Your task to perform on an android device: change the upload size in google photos Image 0: 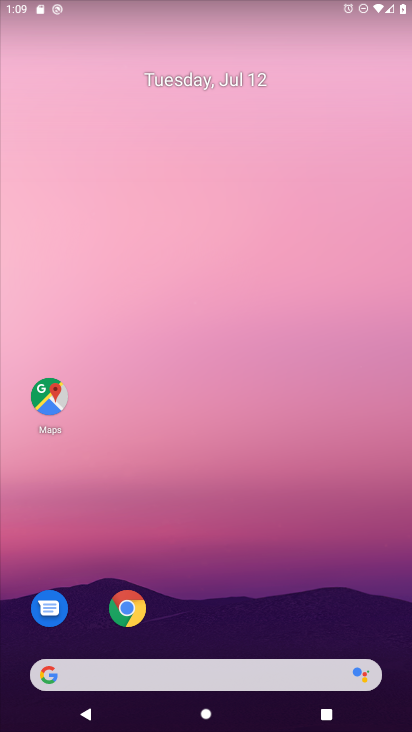
Step 0: drag from (192, 593) to (134, 365)
Your task to perform on an android device: change the upload size in google photos Image 1: 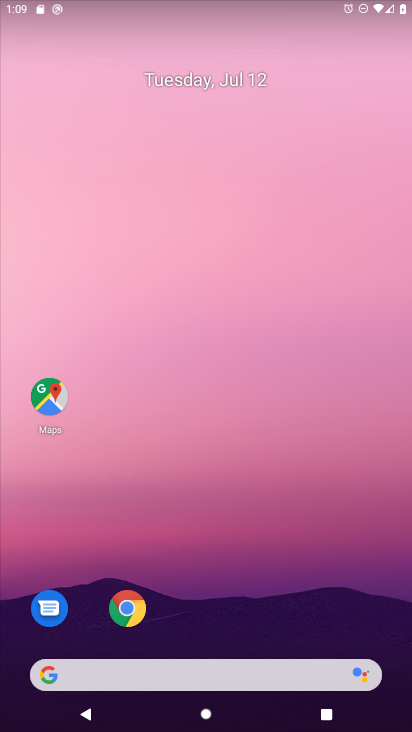
Step 1: drag from (240, 668) to (182, 196)
Your task to perform on an android device: change the upload size in google photos Image 2: 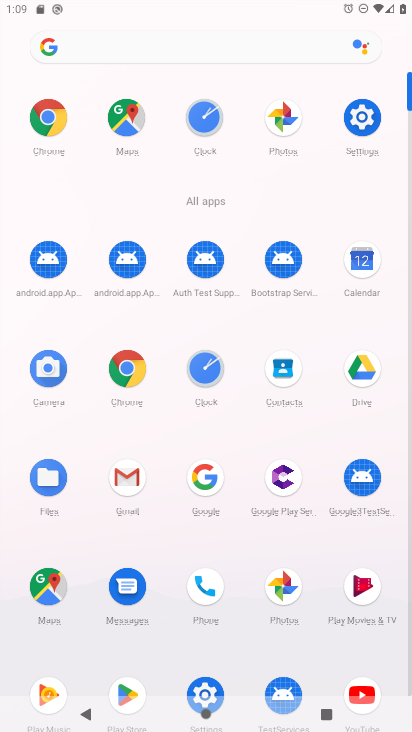
Step 2: click (285, 583)
Your task to perform on an android device: change the upload size in google photos Image 3: 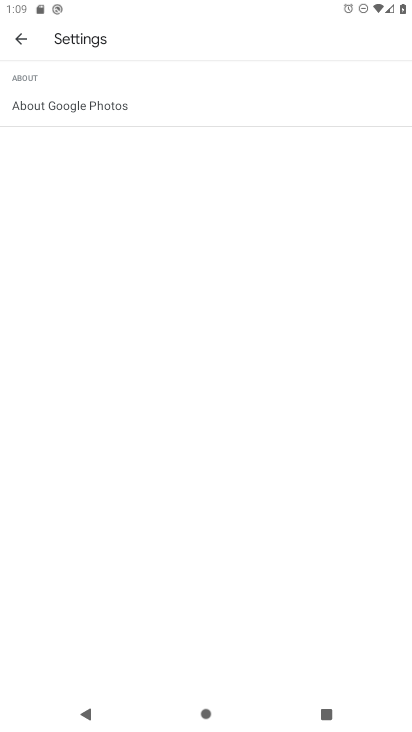
Step 3: click (18, 29)
Your task to perform on an android device: change the upload size in google photos Image 4: 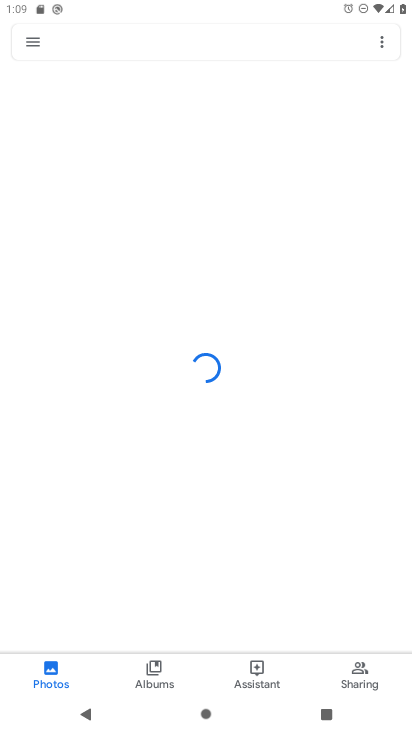
Step 4: click (27, 40)
Your task to perform on an android device: change the upload size in google photos Image 5: 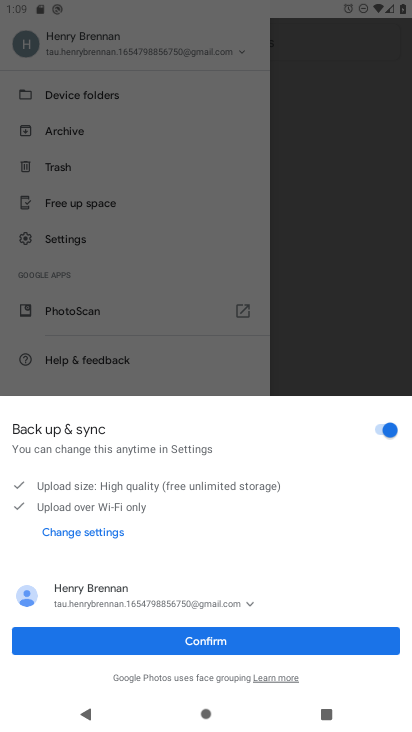
Step 5: click (200, 640)
Your task to perform on an android device: change the upload size in google photos Image 6: 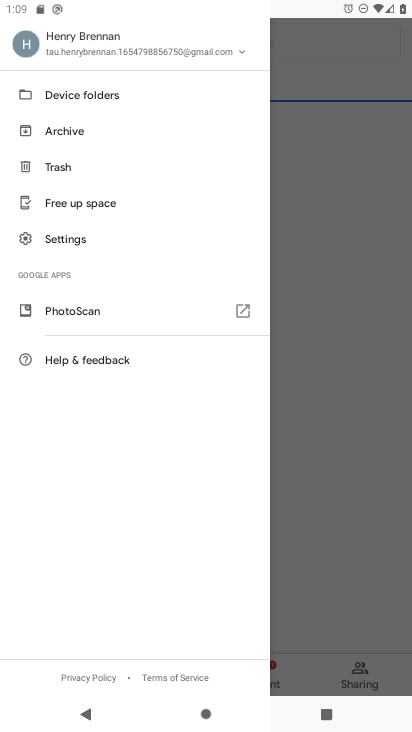
Step 6: click (48, 234)
Your task to perform on an android device: change the upload size in google photos Image 7: 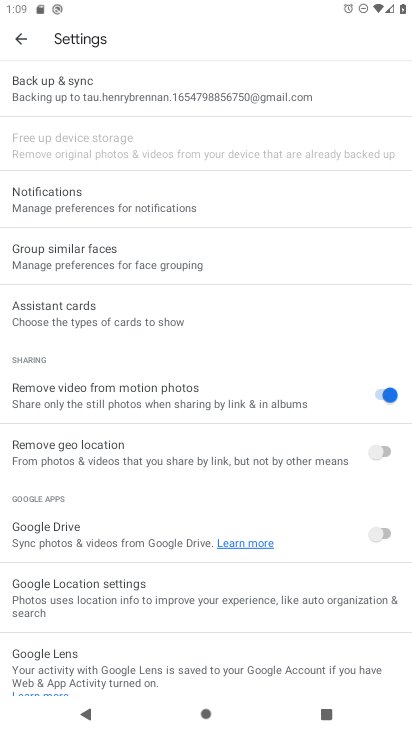
Step 7: click (36, 93)
Your task to perform on an android device: change the upload size in google photos Image 8: 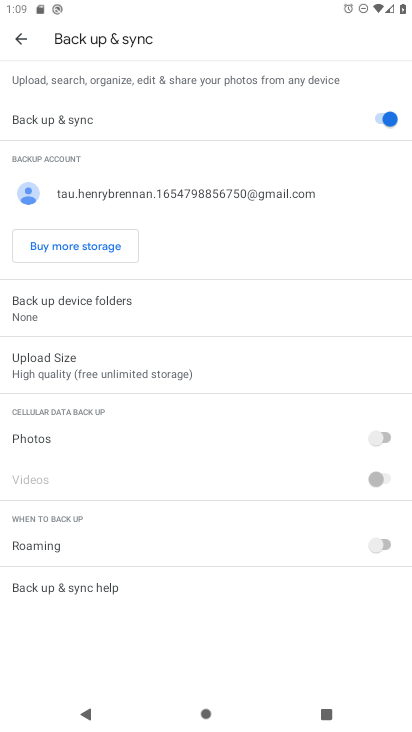
Step 8: click (48, 378)
Your task to perform on an android device: change the upload size in google photos Image 9: 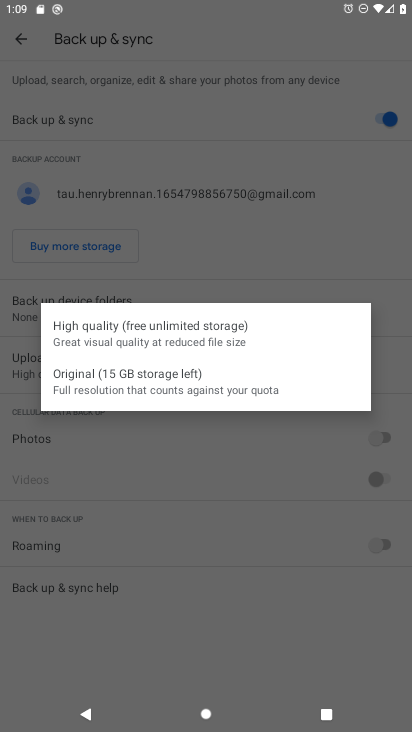
Step 9: click (95, 380)
Your task to perform on an android device: change the upload size in google photos Image 10: 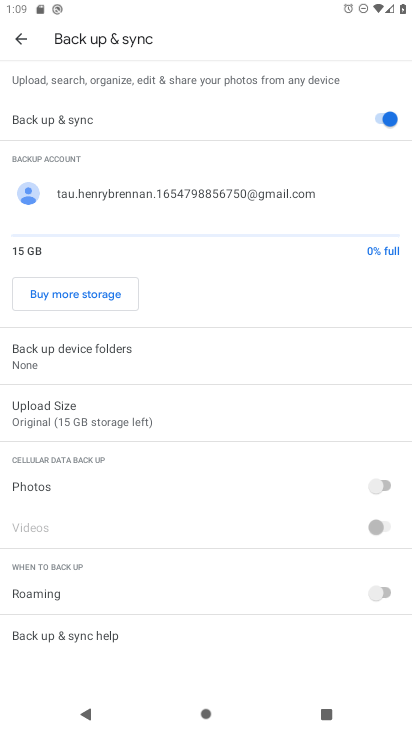
Step 10: task complete